Your task to perform on an android device: Turn off the flashlight Image 0: 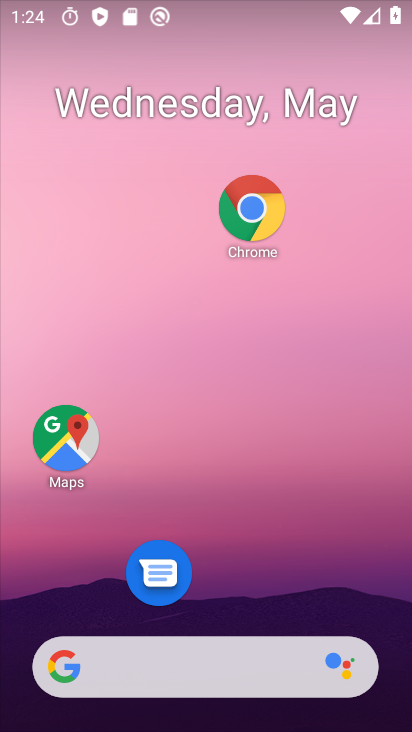
Step 0: drag from (251, 609) to (206, 63)
Your task to perform on an android device: Turn off the flashlight Image 1: 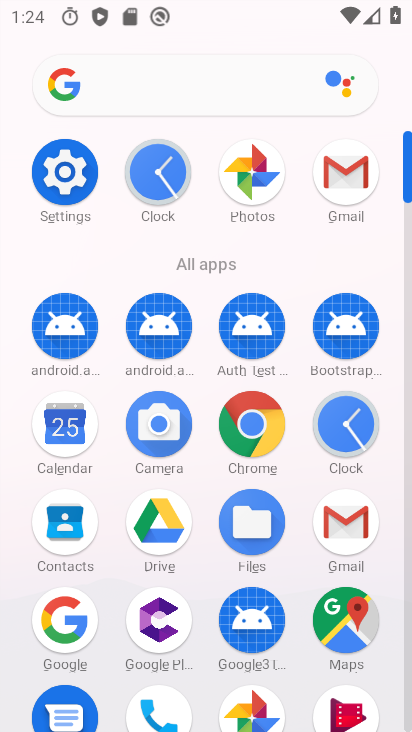
Step 1: click (40, 205)
Your task to perform on an android device: Turn off the flashlight Image 2: 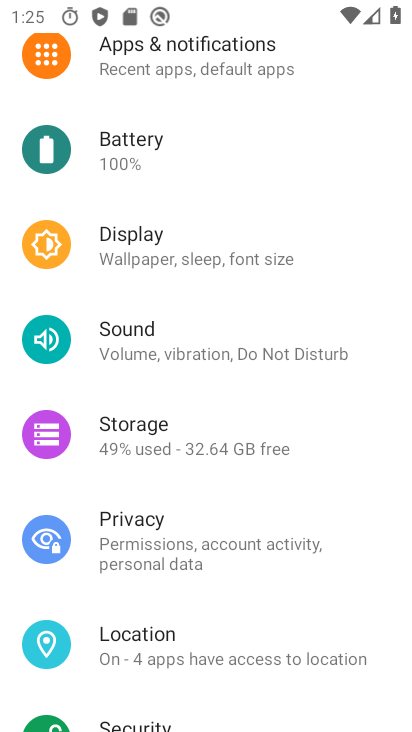
Step 2: task complete